Your task to perform on an android device: turn off airplane mode Image 0: 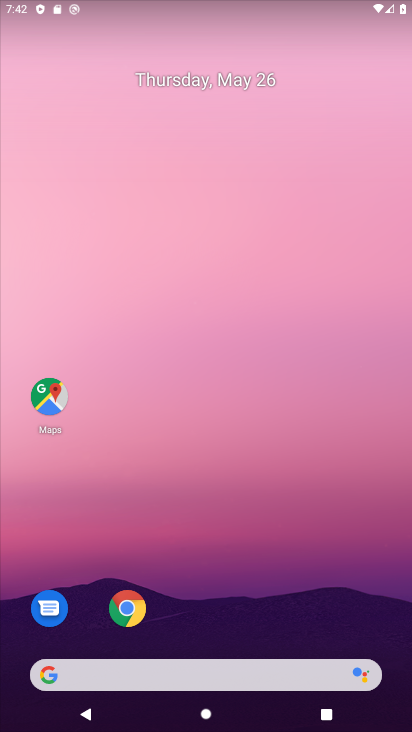
Step 0: drag from (274, 630) to (254, 6)
Your task to perform on an android device: turn off airplane mode Image 1: 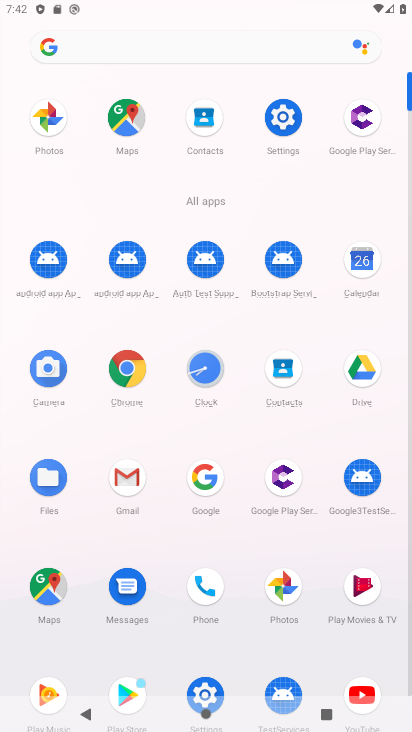
Step 1: click (284, 125)
Your task to perform on an android device: turn off airplane mode Image 2: 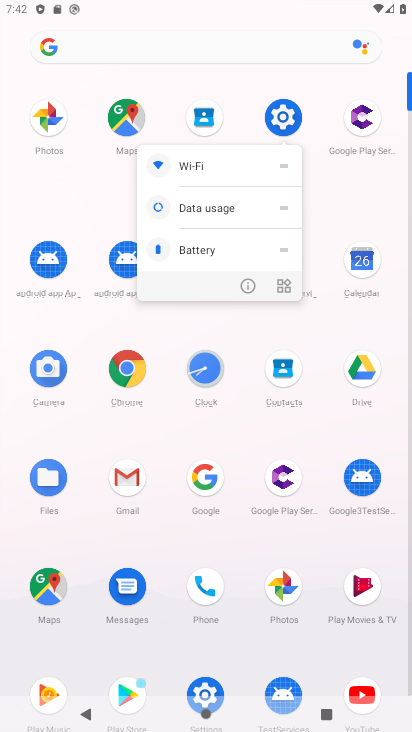
Step 2: click (284, 125)
Your task to perform on an android device: turn off airplane mode Image 3: 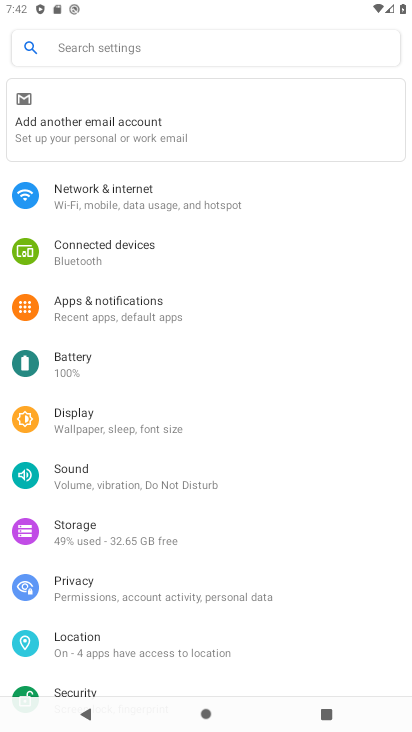
Step 3: click (104, 198)
Your task to perform on an android device: turn off airplane mode Image 4: 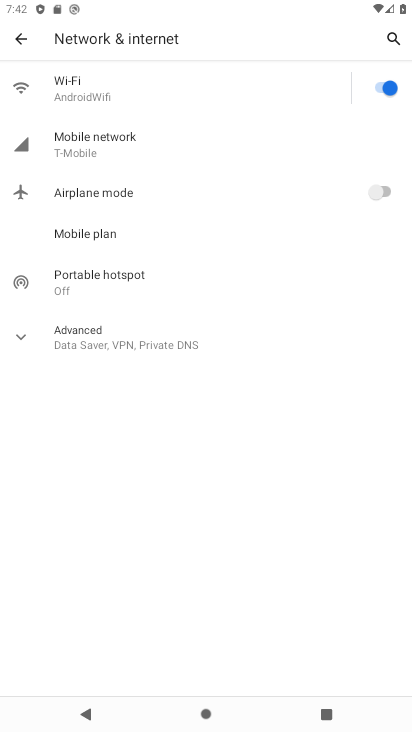
Step 4: task complete